Your task to perform on an android device: toggle sleep mode Image 0: 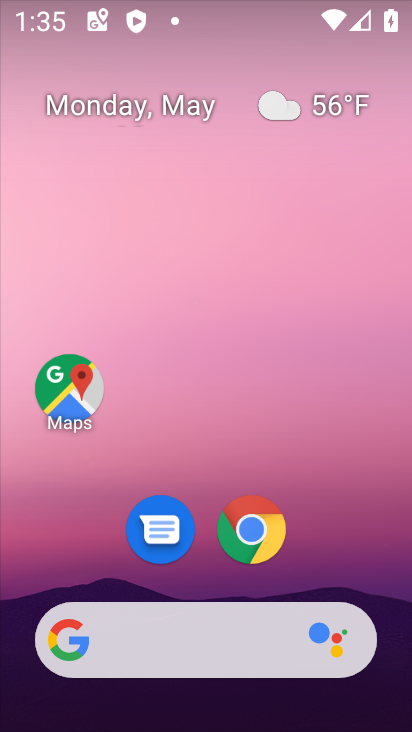
Step 0: drag from (306, 572) to (308, 58)
Your task to perform on an android device: toggle sleep mode Image 1: 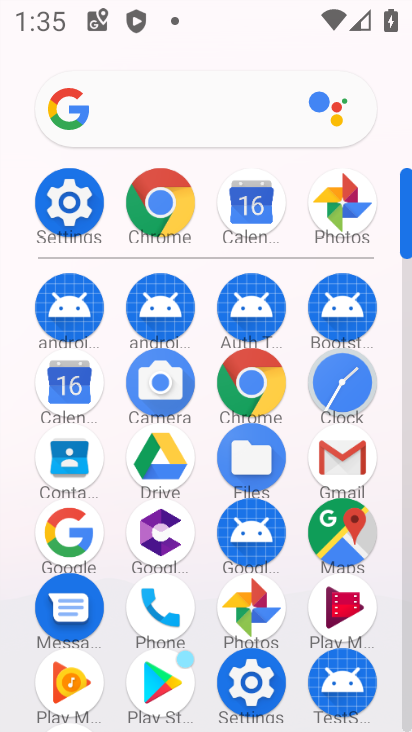
Step 1: click (65, 207)
Your task to perform on an android device: toggle sleep mode Image 2: 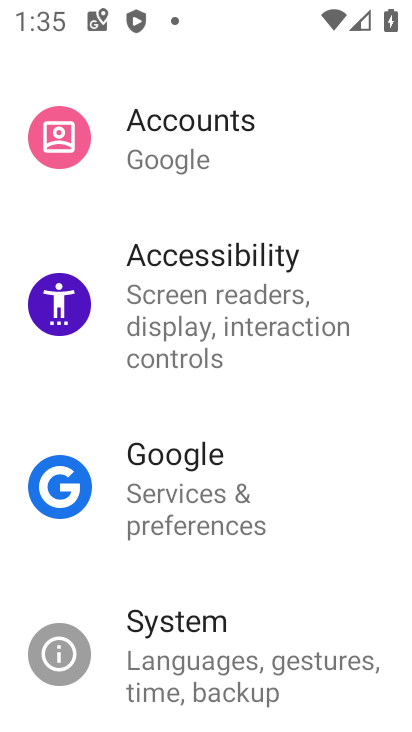
Step 2: drag from (230, 261) to (261, 599)
Your task to perform on an android device: toggle sleep mode Image 3: 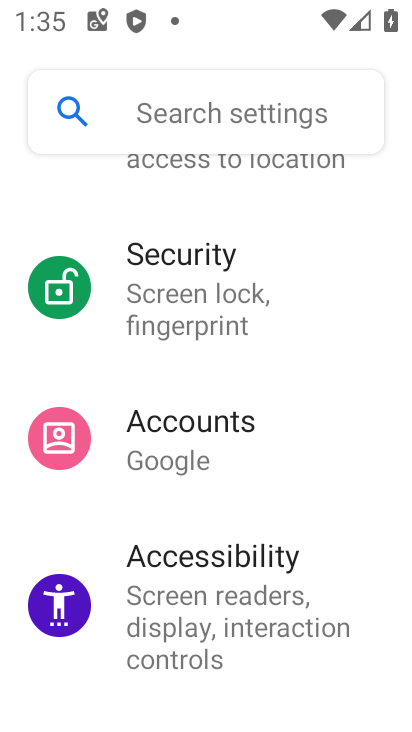
Step 3: drag from (252, 348) to (259, 637)
Your task to perform on an android device: toggle sleep mode Image 4: 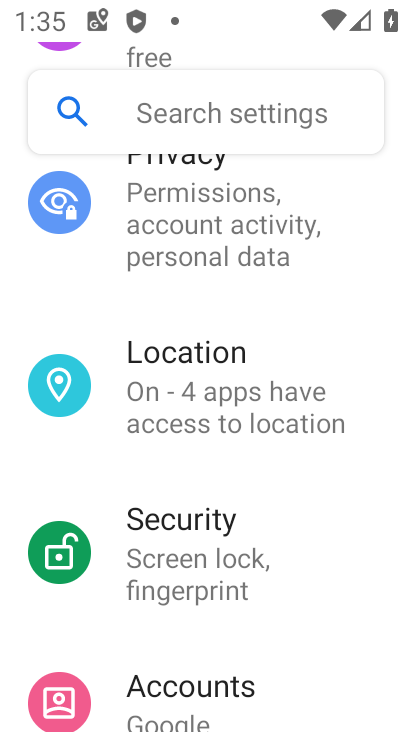
Step 4: drag from (281, 252) to (248, 531)
Your task to perform on an android device: toggle sleep mode Image 5: 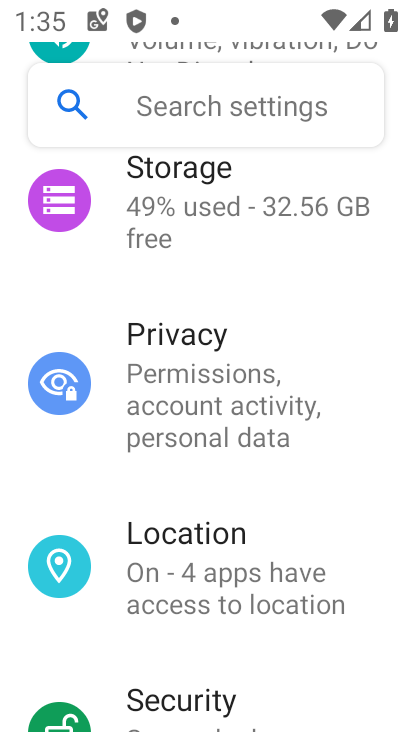
Step 5: drag from (241, 280) to (236, 514)
Your task to perform on an android device: toggle sleep mode Image 6: 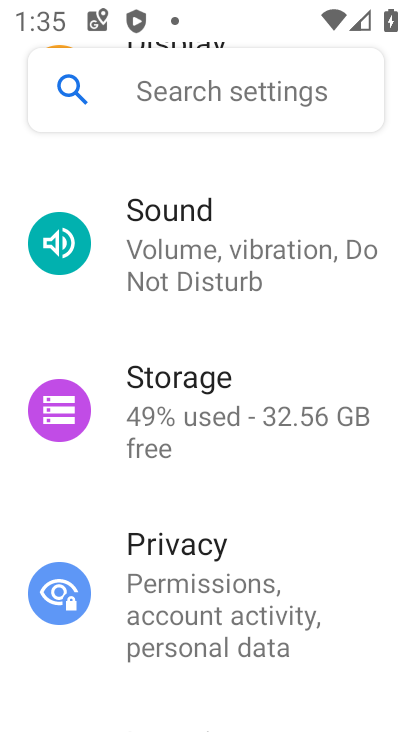
Step 6: drag from (270, 261) to (272, 565)
Your task to perform on an android device: toggle sleep mode Image 7: 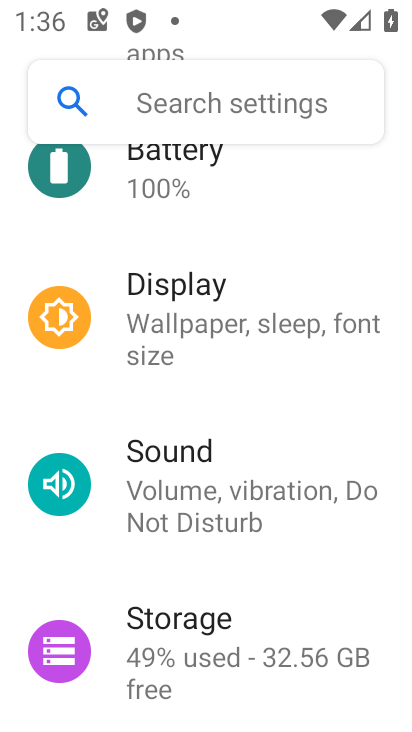
Step 7: drag from (288, 249) to (274, 431)
Your task to perform on an android device: toggle sleep mode Image 8: 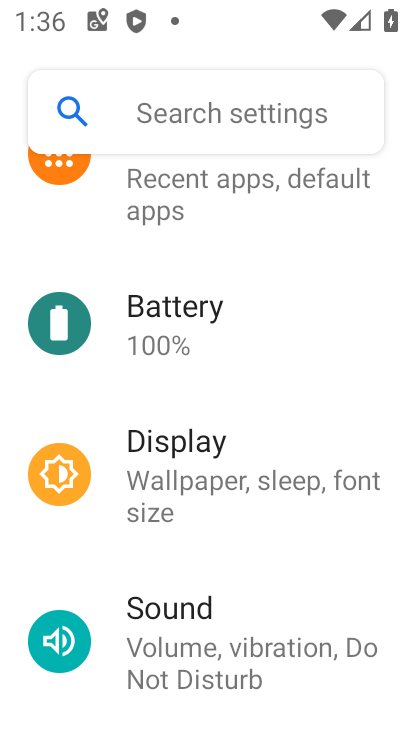
Step 8: click (228, 455)
Your task to perform on an android device: toggle sleep mode Image 9: 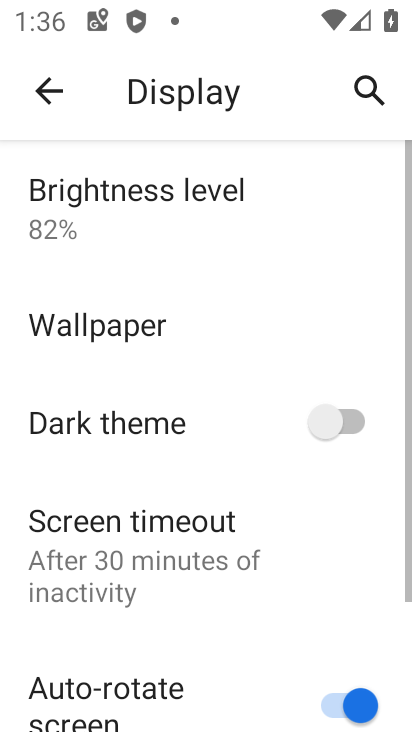
Step 9: drag from (232, 493) to (215, 136)
Your task to perform on an android device: toggle sleep mode Image 10: 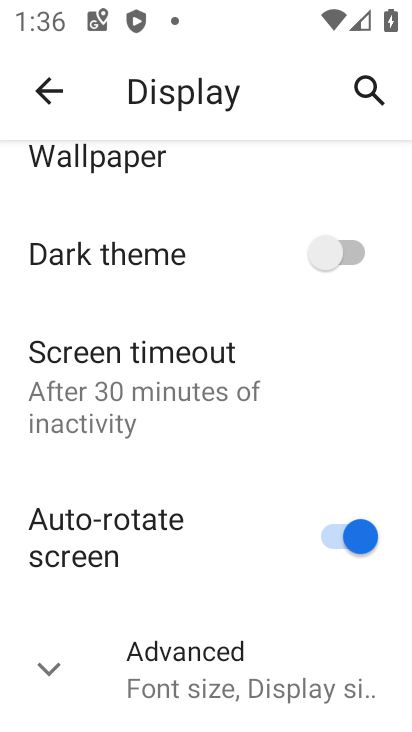
Step 10: click (111, 706)
Your task to perform on an android device: toggle sleep mode Image 11: 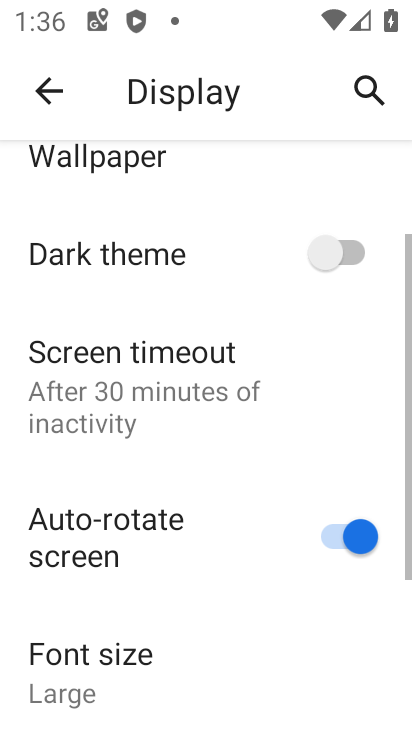
Step 11: task complete